Your task to perform on an android device: turn off sleep mode Image 0: 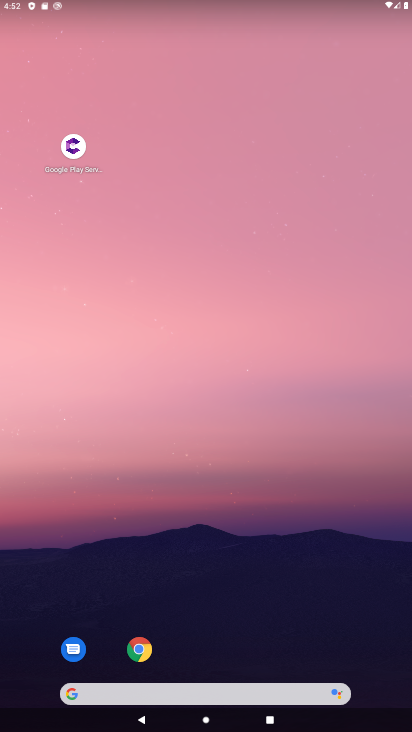
Step 0: drag from (219, 677) to (298, 285)
Your task to perform on an android device: turn off sleep mode Image 1: 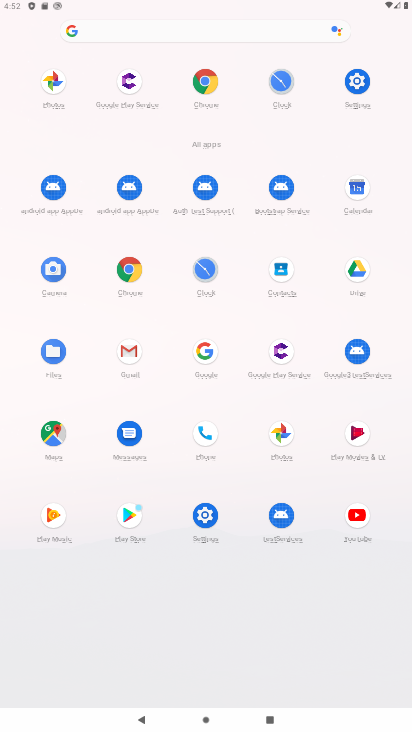
Step 1: click (360, 85)
Your task to perform on an android device: turn off sleep mode Image 2: 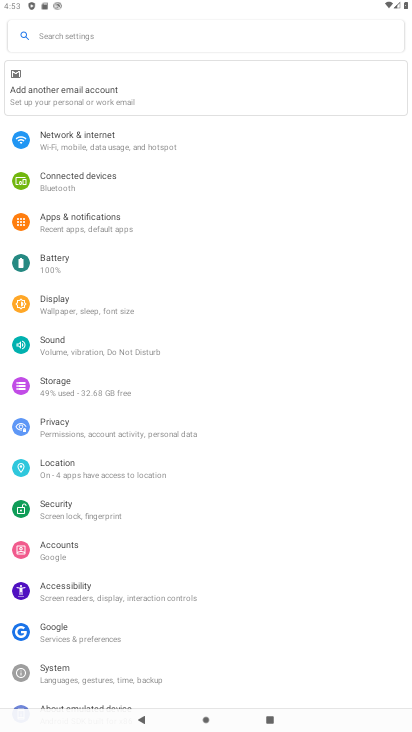
Step 2: click (110, 227)
Your task to perform on an android device: turn off sleep mode Image 3: 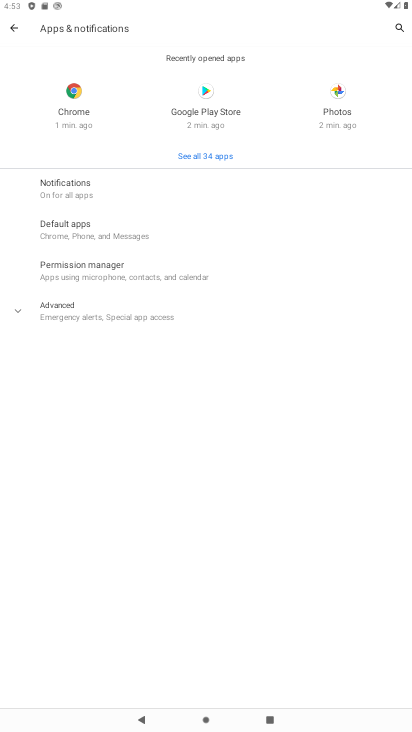
Step 3: click (77, 194)
Your task to perform on an android device: turn off sleep mode Image 4: 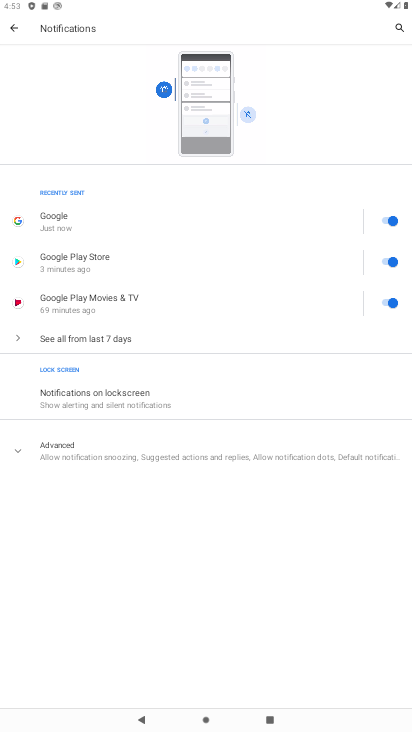
Step 4: press back button
Your task to perform on an android device: turn off sleep mode Image 5: 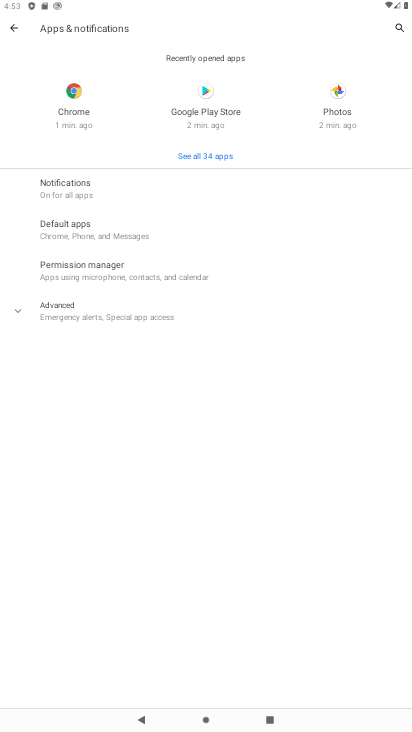
Step 5: press back button
Your task to perform on an android device: turn off sleep mode Image 6: 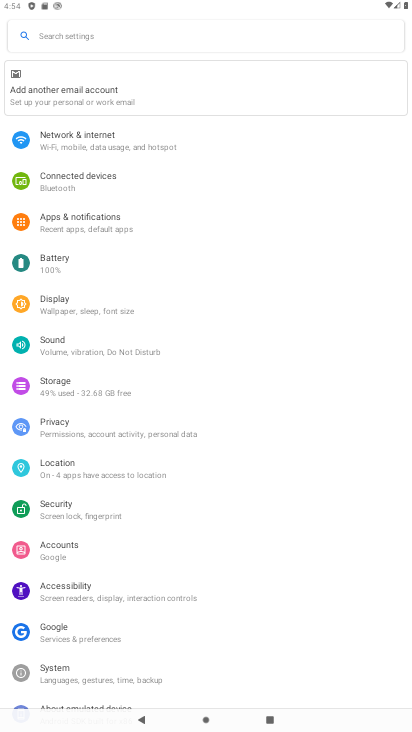
Step 6: click (84, 310)
Your task to perform on an android device: turn off sleep mode Image 7: 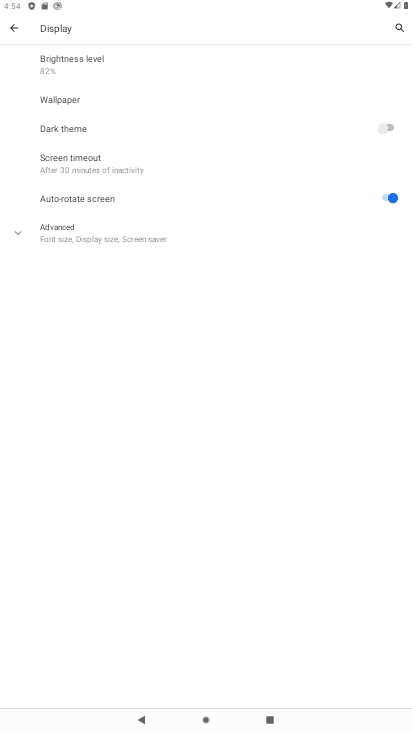
Step 7: task complete